Your task to perform on an android device: Is it going to rain today? Image 0: 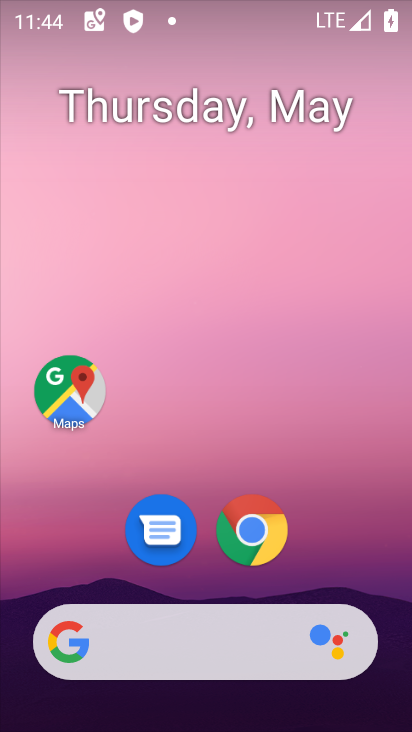
Step 0: click (164, 649)
Your task to perform on an android device: Is it going to rain today? Image 1: 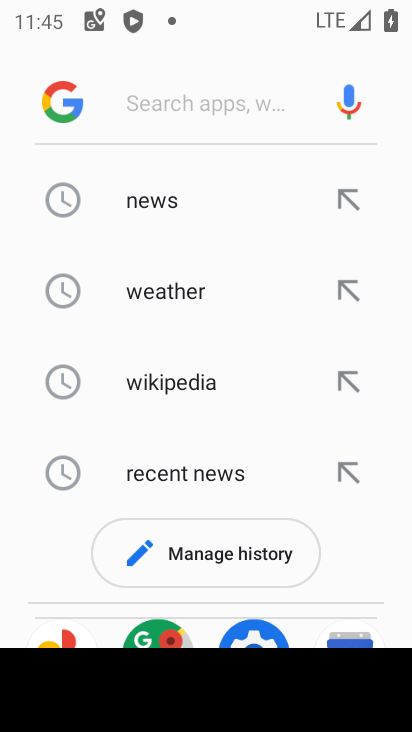
Step 1: type "Is it going to rain today?"
Your task to perform on an android device: Is it going to rain today? Image 2: 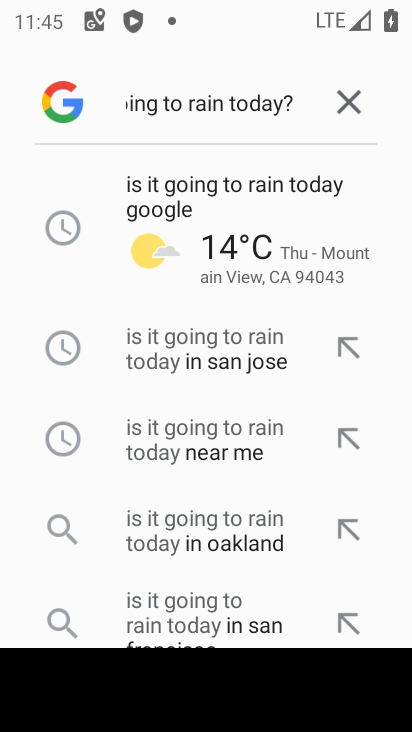
Step 2: click (276, 194)
Your task to perform on an android device: Is it going to rain today? Image 3: 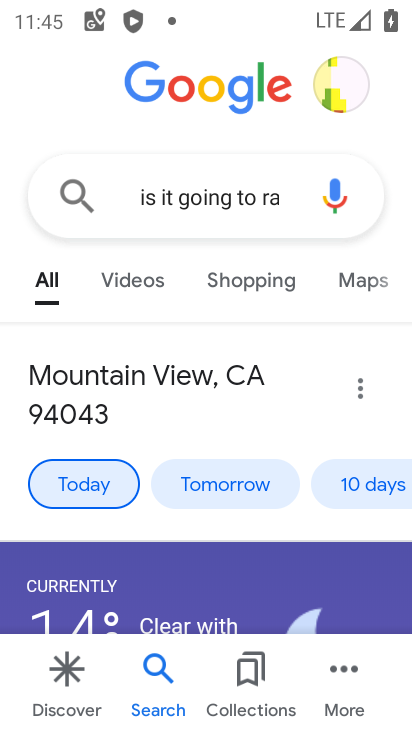
Step 3: task complete